Your task to perform on an android device: turn smart compose on in the gmail app Image 0: 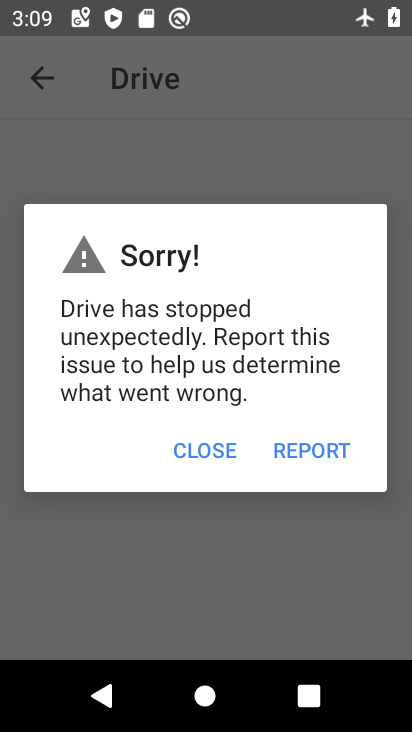
Step 0: click (205, 702)
Your task to perform on an android device: turn smart compose on in the gmail app Image 1: 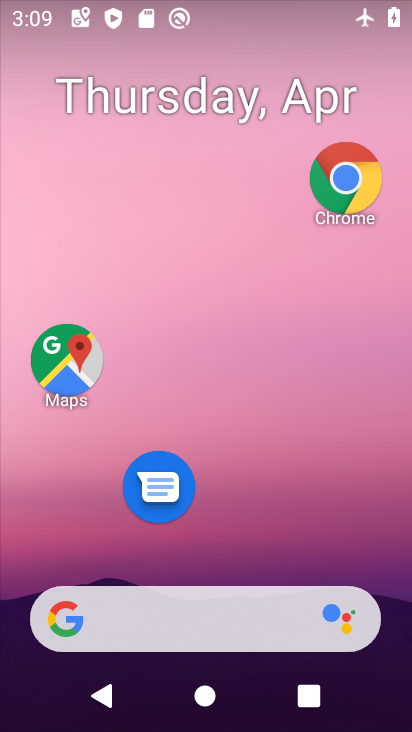
Step 1: drag from (244, 604) to (270, 243)
Your task to perform on an android device: turn smart compose on in the gmail app Image 2: 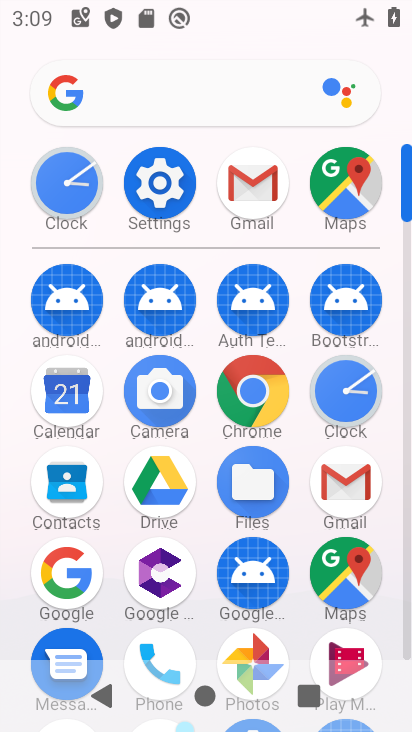
Step 2: click (335, 494)
Your task to perform on an android device: turn smart compose on in the gmail app Image 3: 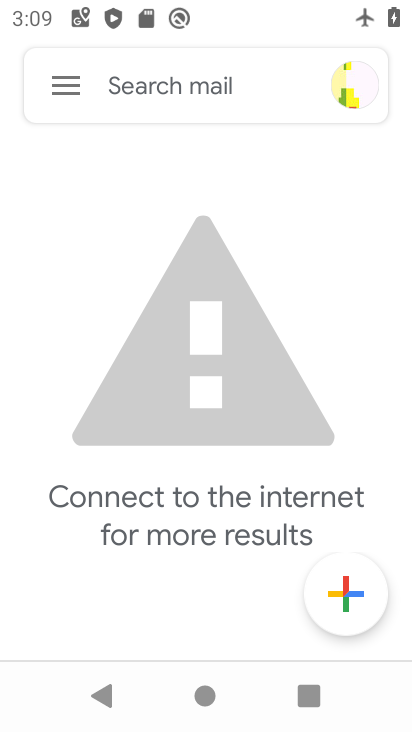
Step 3: click (75, 86)
Your task to perform on an android device: turn smart compose on in the gmail app Image 4: 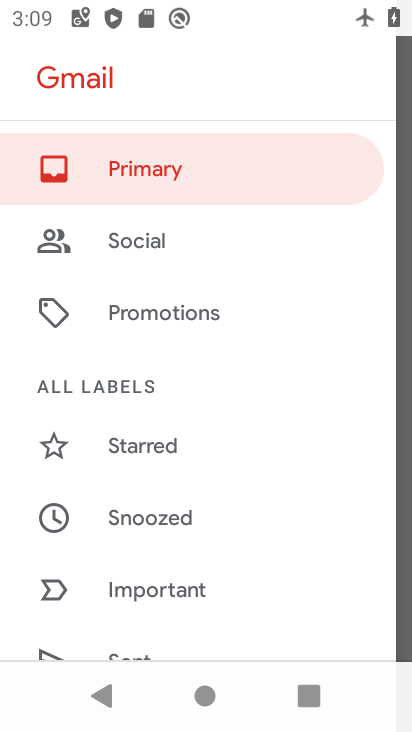
Step 4: drag from (145, 514) to (202, 220)
Your task to perform on an android device: turn smart compose on in the gmail app Image 5: 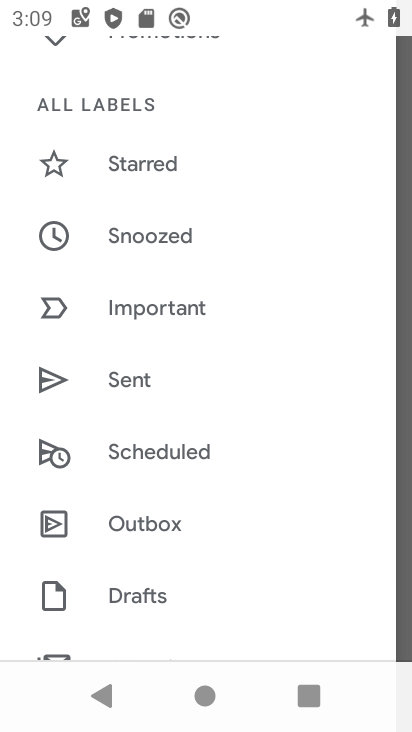
Step 5: drag from (181, 518) to (233, 150)
Your task to perform on an android device: turn smart compose on in the gmail app Image 6: 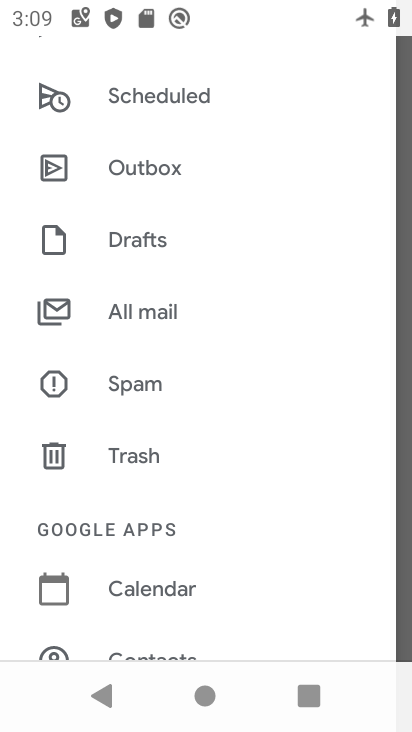
Step 6: drag from (218, 592) to (286, 227)
Your task to perform on an android device: turn smart compose on in the gmail app Image 7: 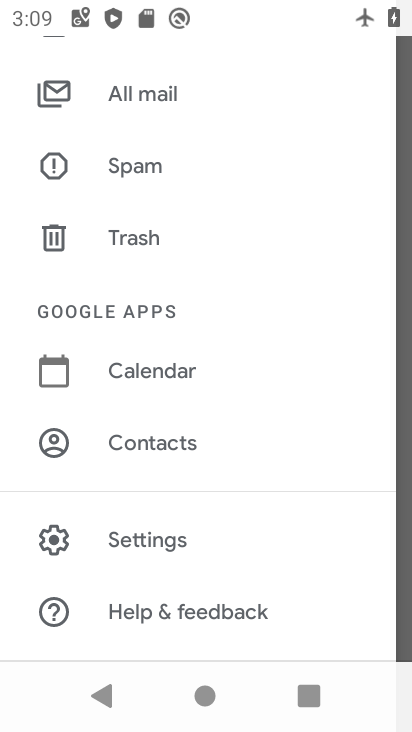
Step 7: click (225, 533)
Your task to perform on an android device: turn smart compose on in the gmail app Image 8: 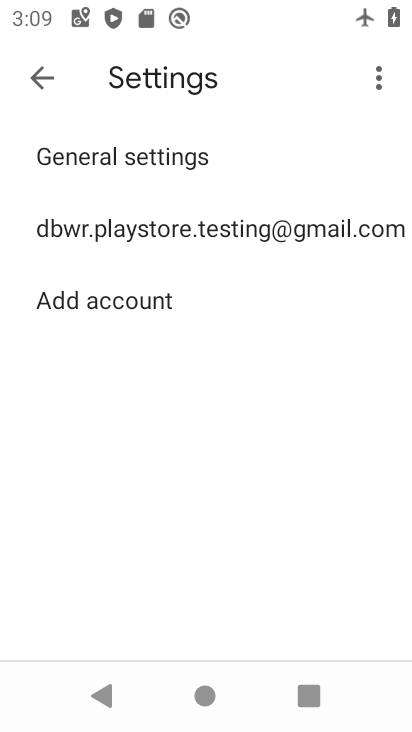
Step 8: click (246, 215)
Your task to perform on an android device: turn smart compose on in the gmail app Image 9: 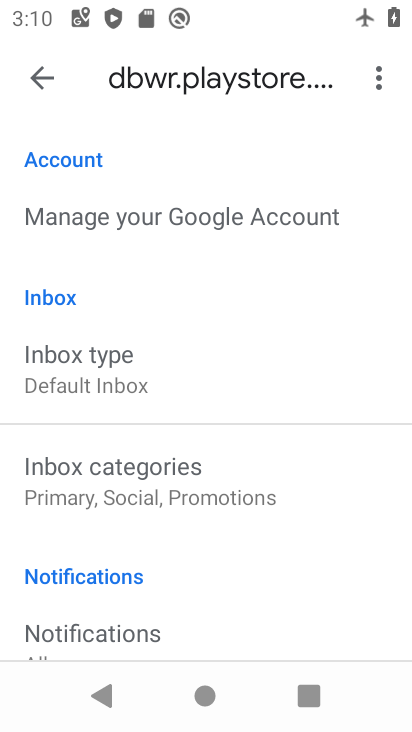
Step 9: task complete